Your task to perform on an android device: Open Youtube and go to "Your channel" Image 0: 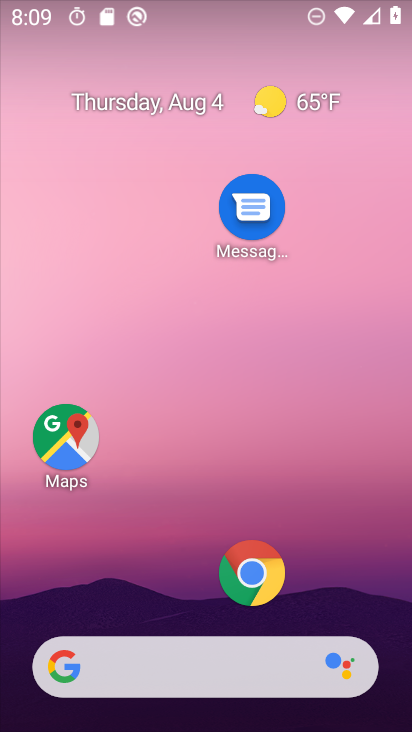
Step 0: press home button
Your task to perform on an android device: Open Youtube and go to "Your channel" Image 1: 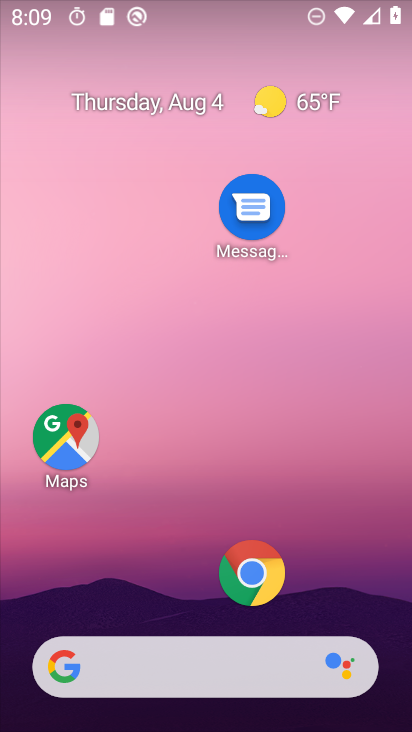
Step 1: drag from (123, 615) to (241, 119)
Your task to perform on an android device: Open Youtube and go to "Your channel" Image 2: 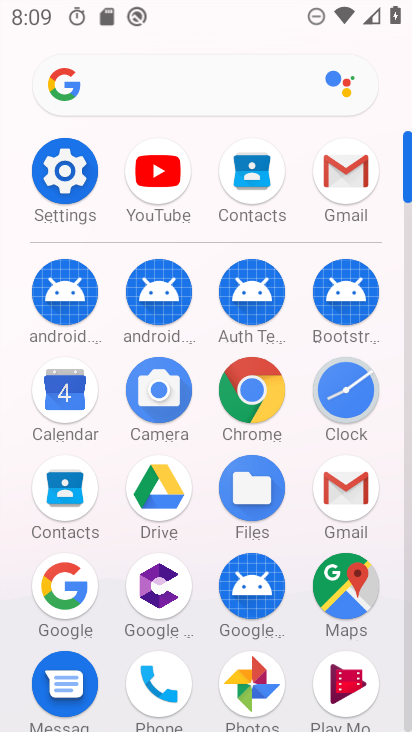
Step 2: drag from (303, 682) to (411, 108)
Your task to perform on an android device: Open Youtube and go to "Your channel" Image 3: 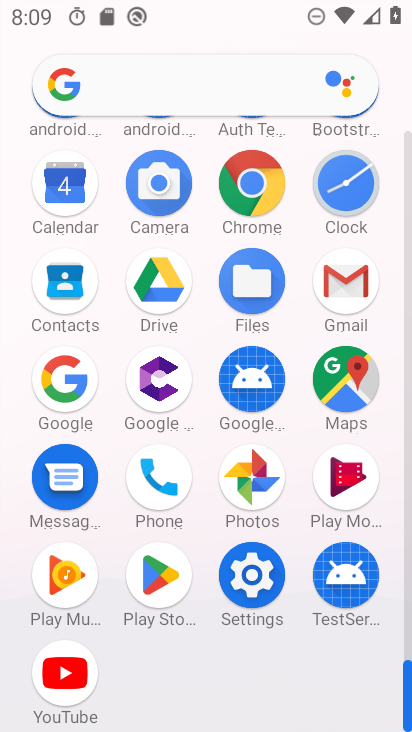
Step 3: click (62, 662)
Your task to perform on an android device: Open Youtube and go to "Your channel" Image 4: 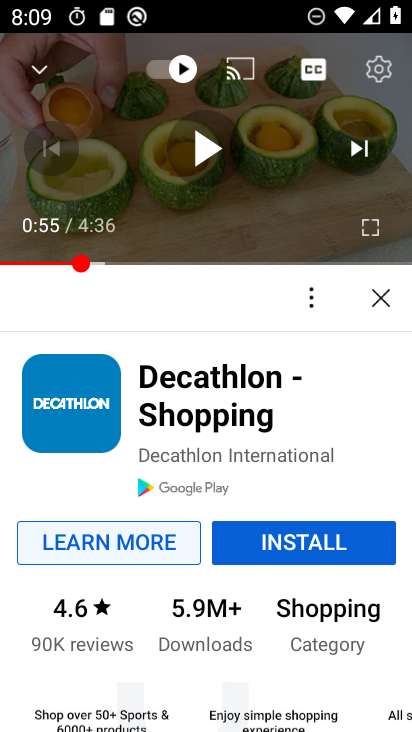
Step 4: click (379, 300)
Your task to perform on an android device: Open Youtube and go to "Your channel" Image 5: 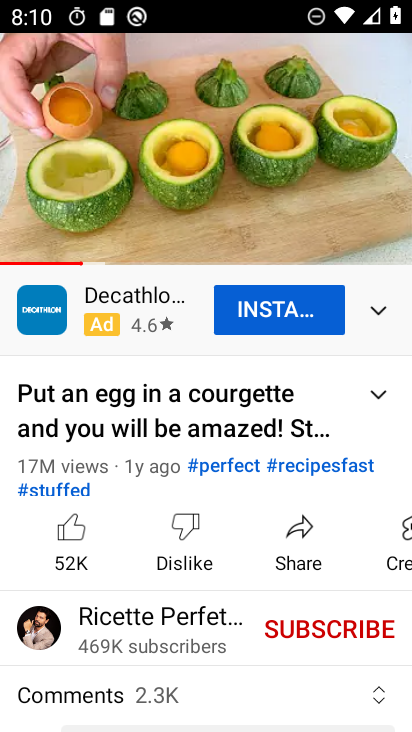
Step 5: drag from (327, 676) to (357, 4)
Your task to perform on an android device: Open Youtube and go to "Your channel" Image 6: 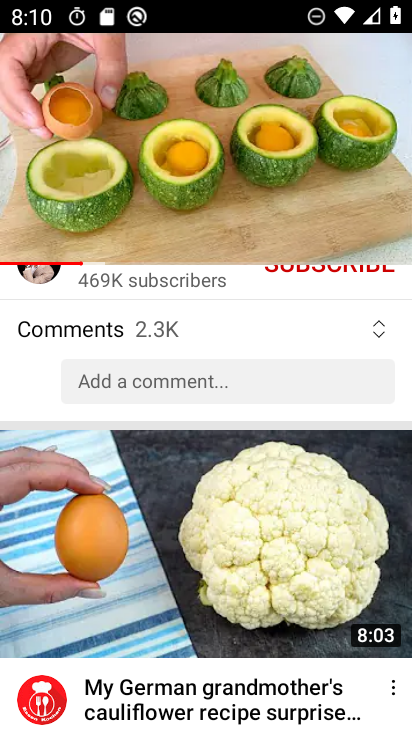
Step 6: drag from (241, 686) to (288, 54)
Your task to perform on an android device: Open Youtube and go to "Your channel" Image 7: 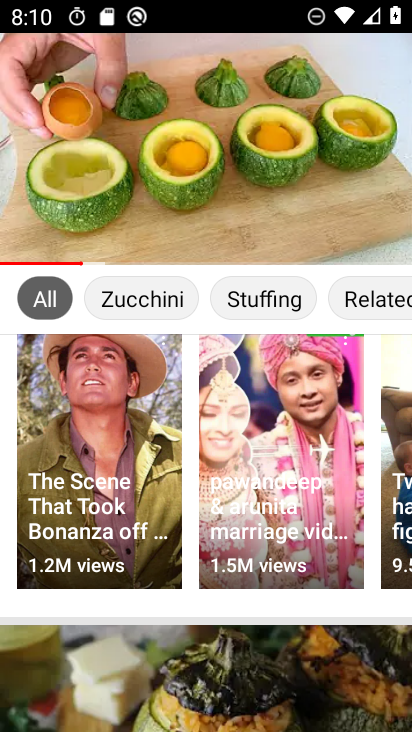
Step 7: press back button
Your task to perform on an android device: Open Youtube and go to "Your channel" Image 8: 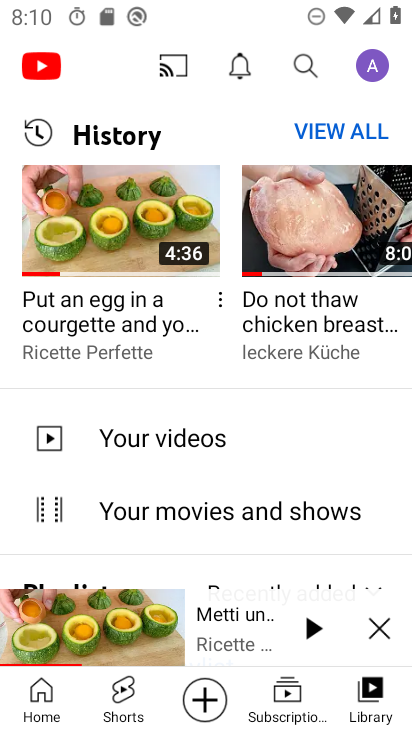
Step 8: click (364, 77)
Your task to perform on an android device: Open Youtube and go to "Your channel" Image 9: 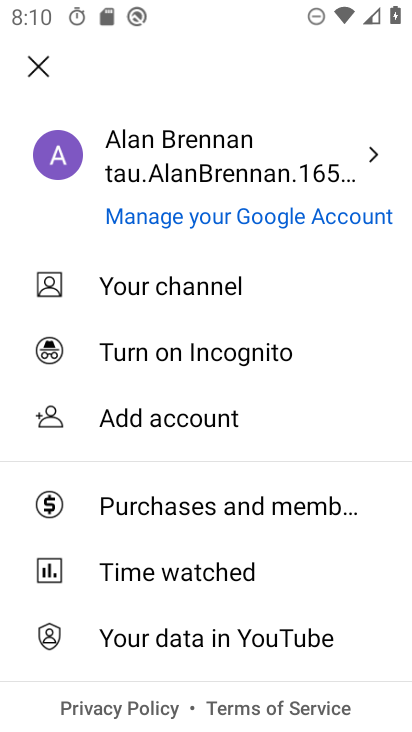
Step 9: click (154, 285)
Your task to perform on an android device: Open Youtube and go to "Your channel" Image 10: 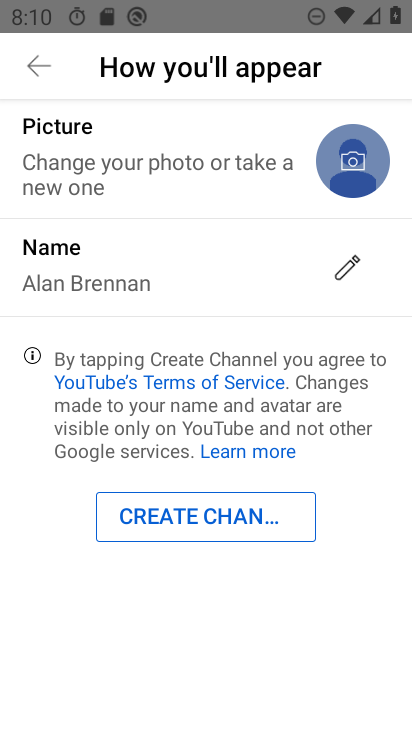
Step 10: task complete